Your task to perform on an android device: Add razer blade to the cart on ebay, then select checkout. Image 0: 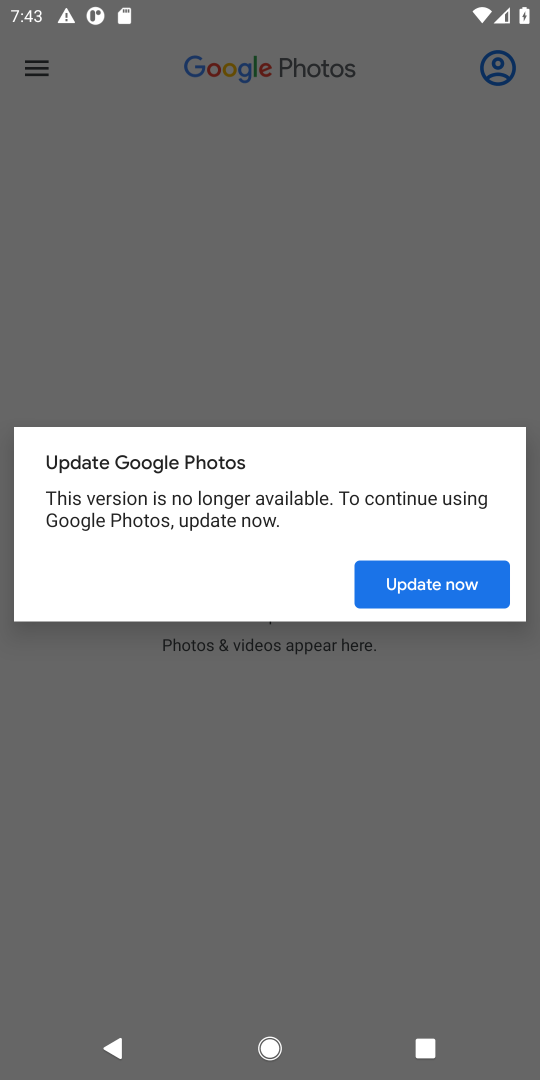
Step 0: press home button
Your task to perform on an android device: Add razer blade to the cart on ebay, then select checkout. Image 1: 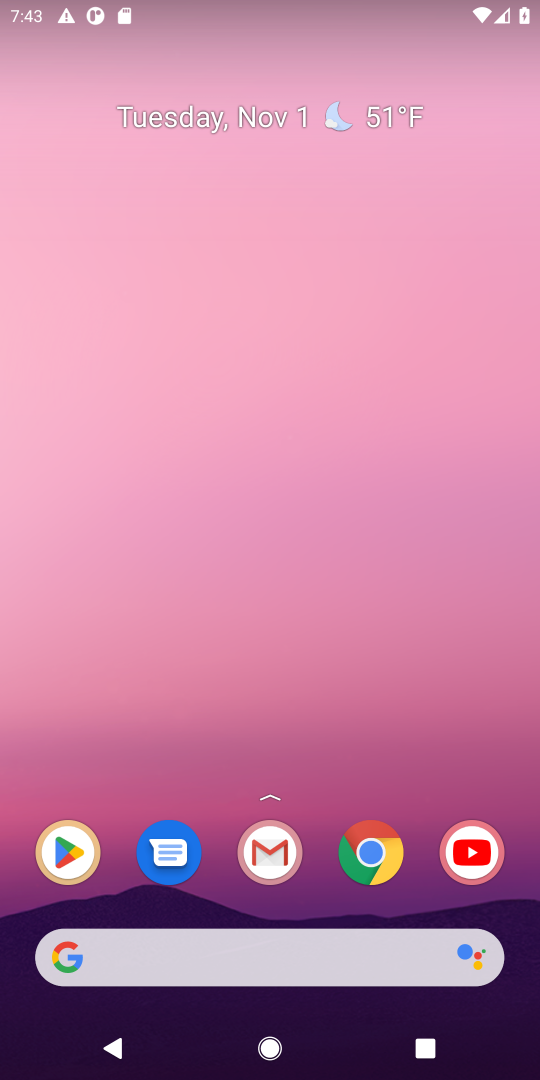
Step 1: drag from (438, 926) to (526, 283)
Your task to perform on an android device: Add razer blade to the cart on ebay, then select checkout. Image 2: 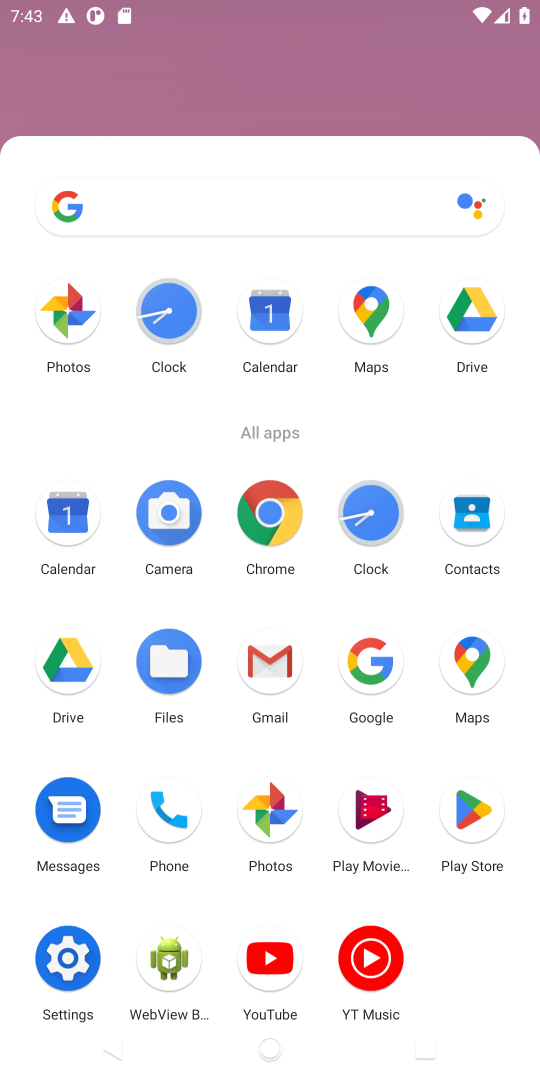
Step 2: drag from (409, 677) to (499, 126)
Your task to perform on an android device: Add razer blade to the cart on ebay, then select checkout. Image 3: 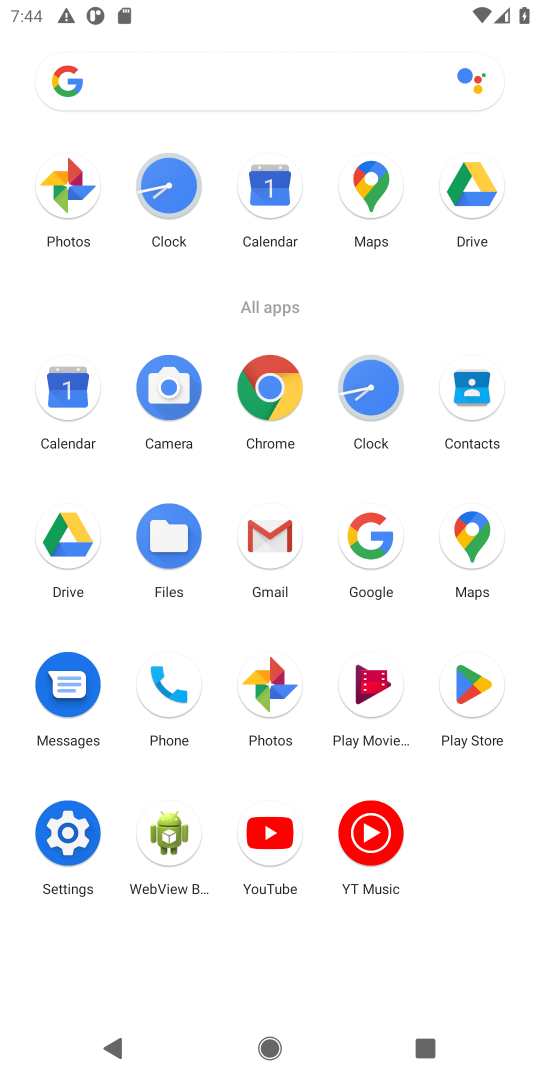
Step 3: click (363, 547)
Your task to perform on an android device: Add razer blade to the cart on ebay, then select checkout. Image 4: 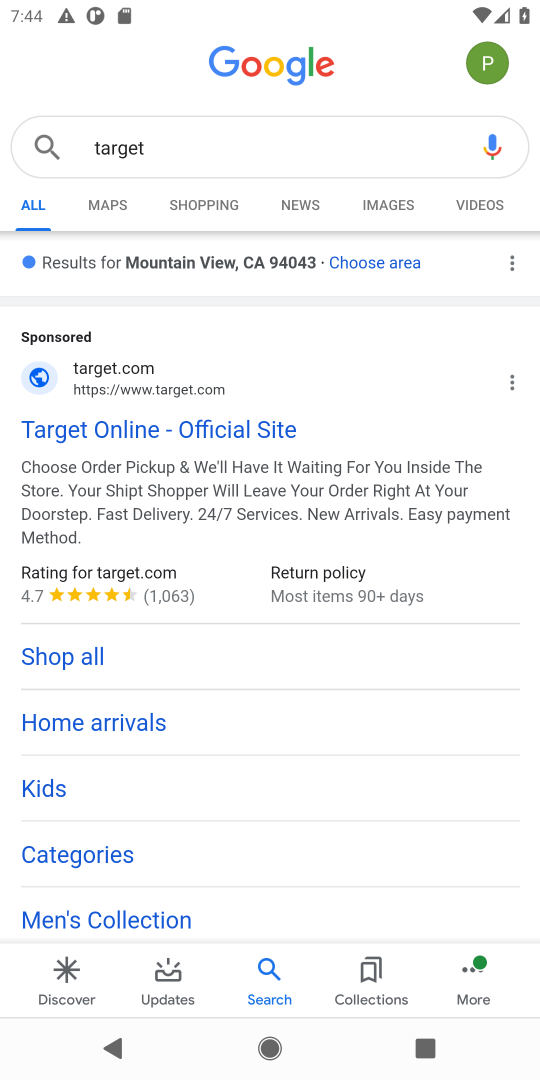
Step 4: click (396, 146)
Your task to perform on an android device: Add razer blade to the cart on ebay, then select checkout. Image 5: 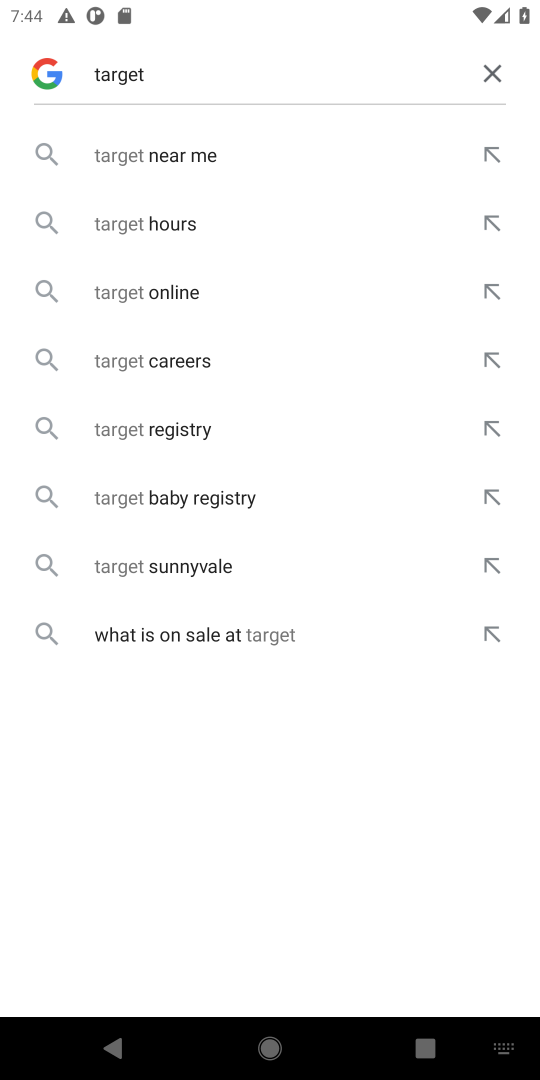
Step 5: click (497, 64)
Your task to perform on an android device: Add razer blade to the cart on ebay, then select checkout. Image 6: 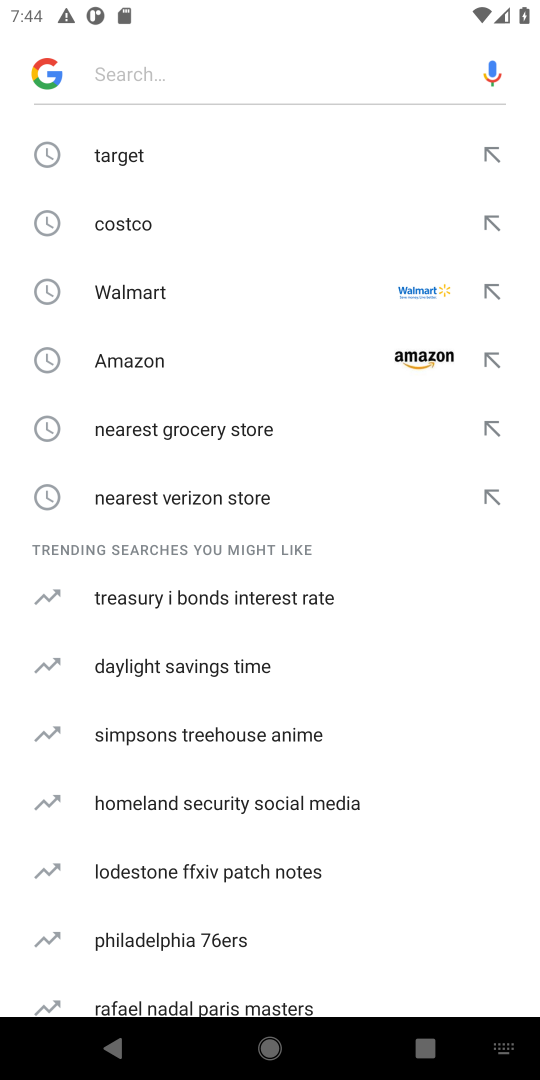
Step 6: type "ebay"
Your task to perform on an android device: Add razer blade to the cart on ebay, then select checkout. Image 7: 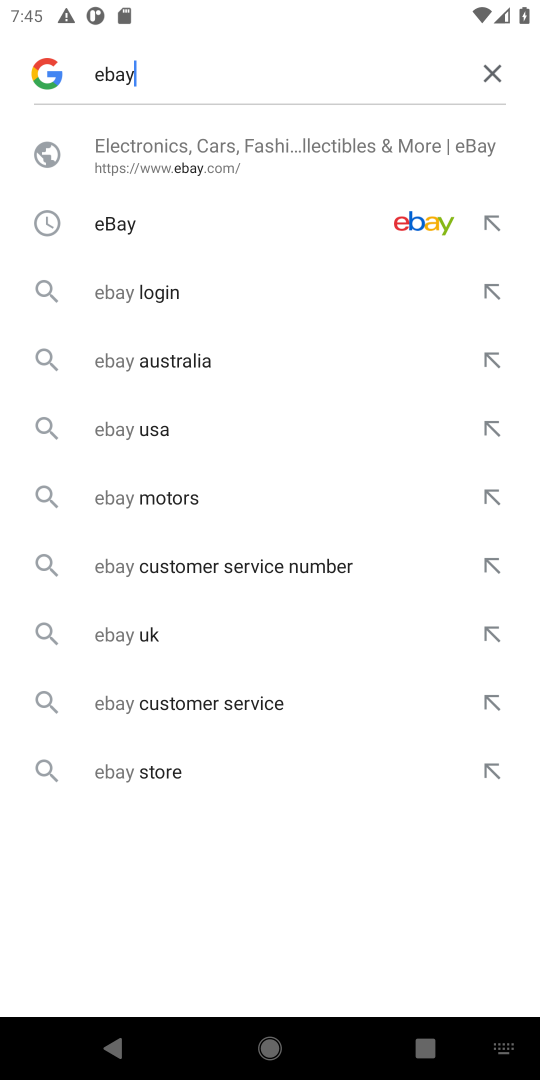
Step 7: click (261, 167)
Your task to perform on an android device: Add razer blade to the cart on ebay, then select checkout. Image 8: 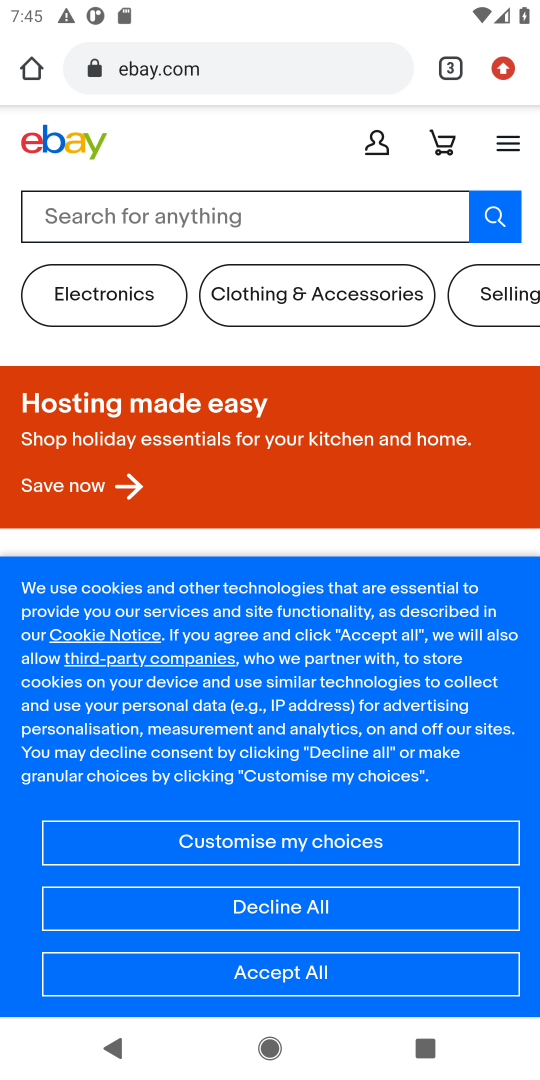
Step 8: click (238, 207)
Your task to perform on an android device: Add razer blade to the cart on ebay, then select checkout. Image 9: 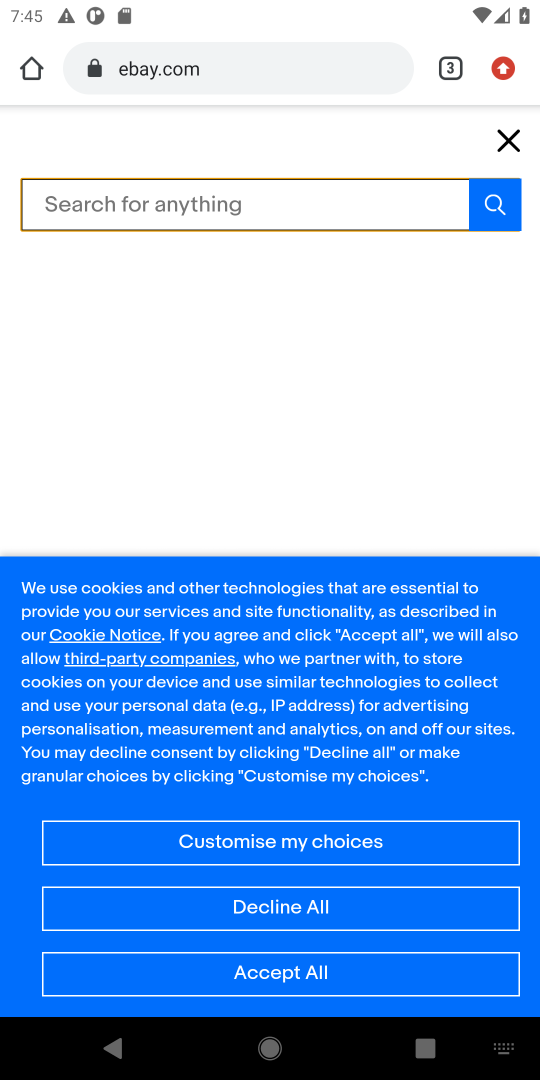
Step 9: type "razer"
Your task to perform on an android device: Add razer blade to the cart on ebay, then select checkout. Image 10: 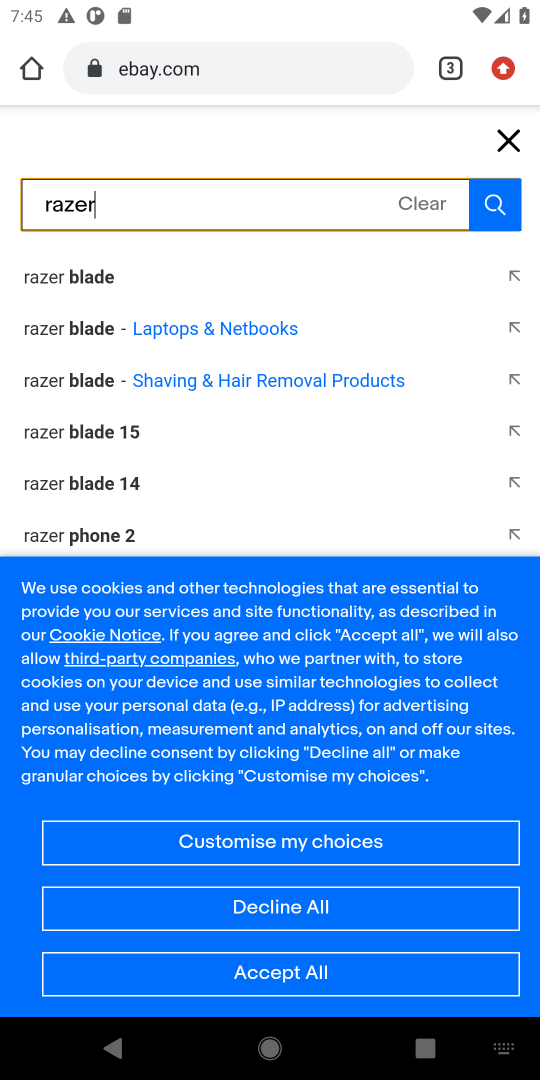
Step 10: click (137, 269)
Your task to perform on an android device: Add razer blade to the cart on ebay, then select checkout. Image 11: 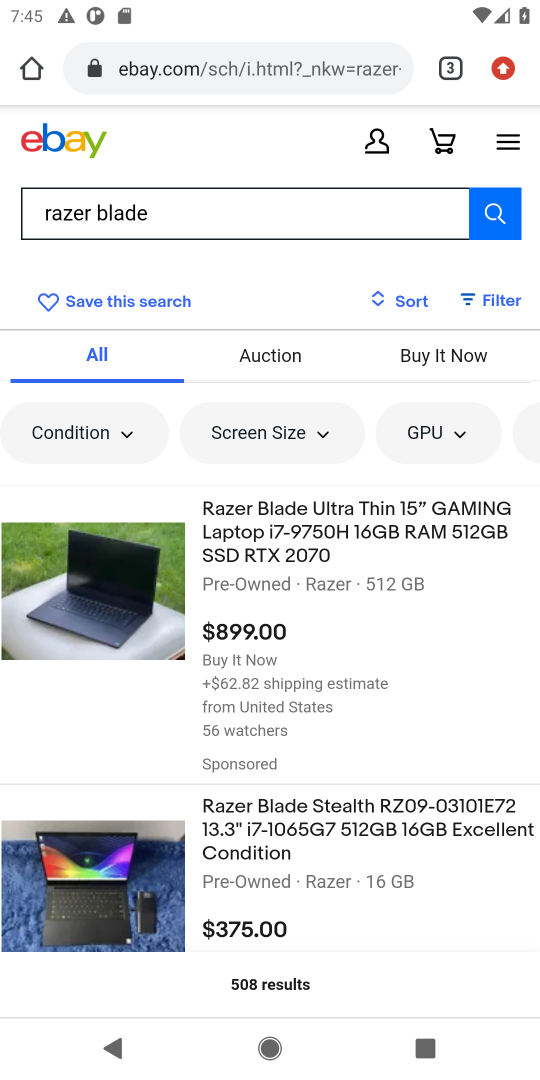
Step 11: click (218, 525)
Your task to perform on an android device: Add razer blade to the cart on ebay, then select checkout. Image 12: 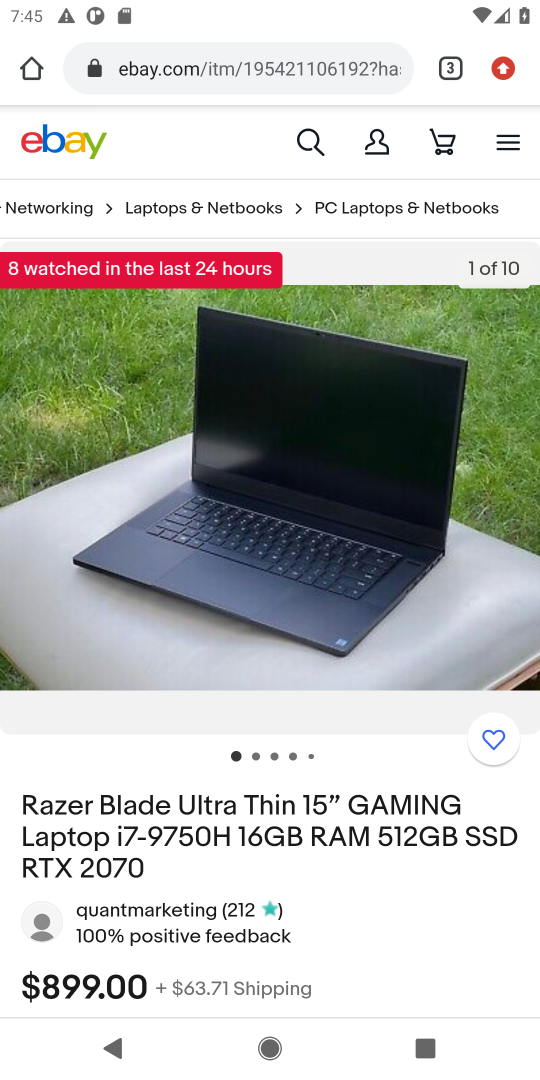
Step 12: drag from (272, 890) to (270, 505)
Your task to perform on an android device: Add razer blade to the cart on ebay, then select checkout. Image 13: 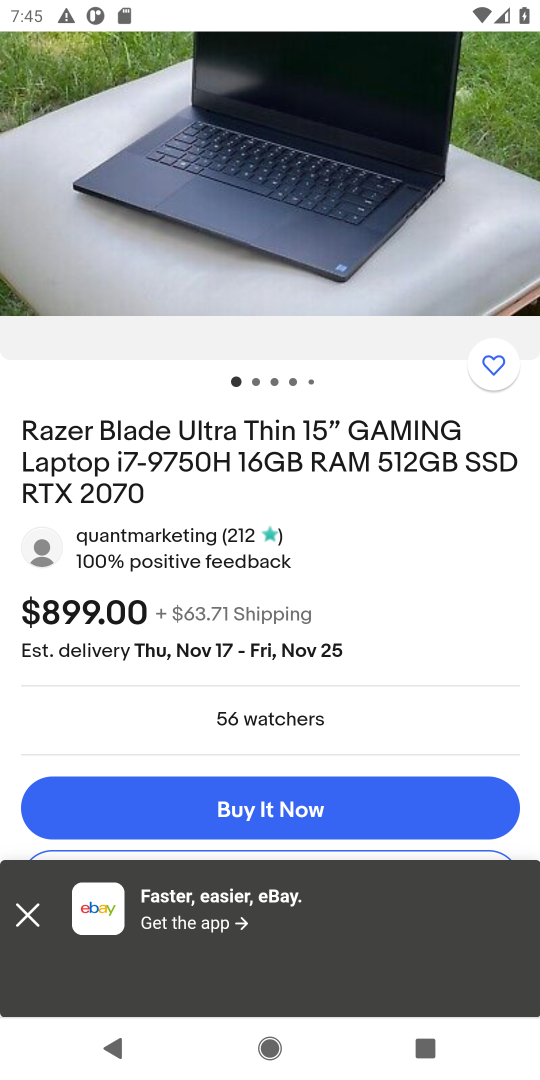
Step 13: drag from (278, 817) to (311, 435)
Your task to perform on an android device: Add razer blade to the cart on ebay, then select checkout. Image 14: 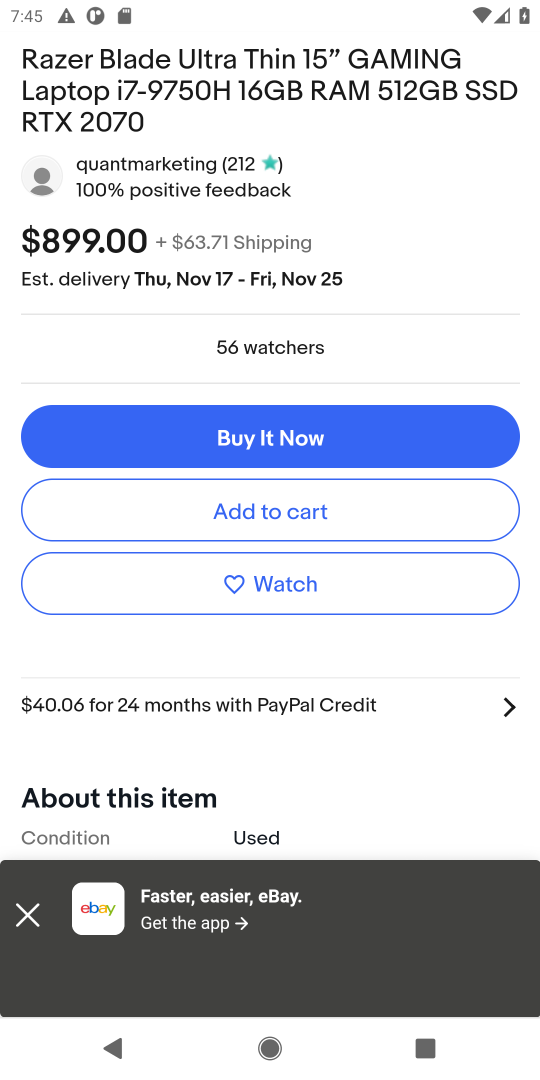
Step 14: click (311, 517)
Your task to perform on an android device: Add razer blade to the cart on ebay, then select checkout. Image 15: 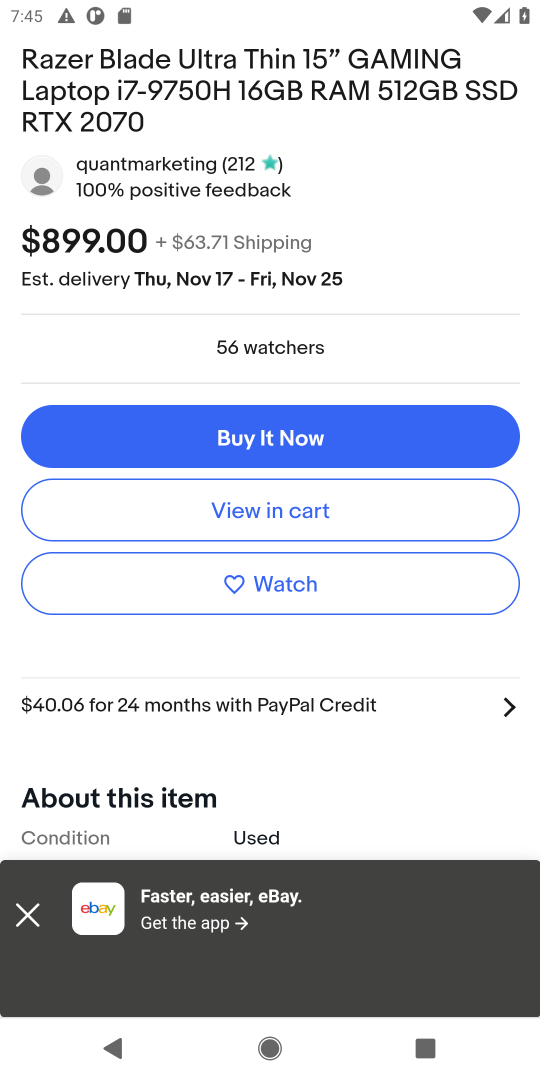
Step 15: task complete